Your task to perform on an android device: empty trash in the gmail app Image 0: 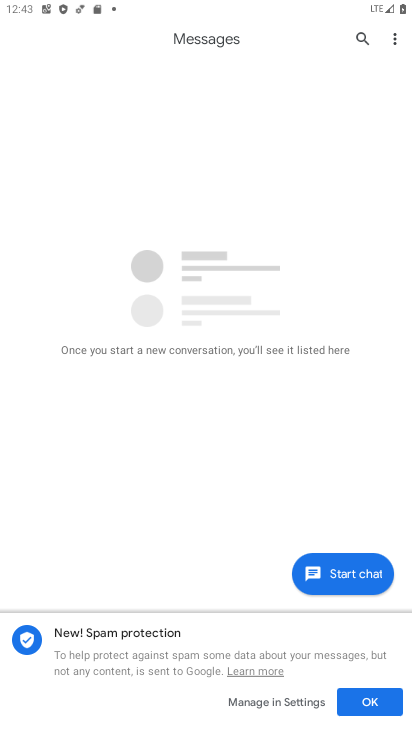
Step 0: press home button
Your task to perform on an android device: empty trash in the gmail app Image 1: 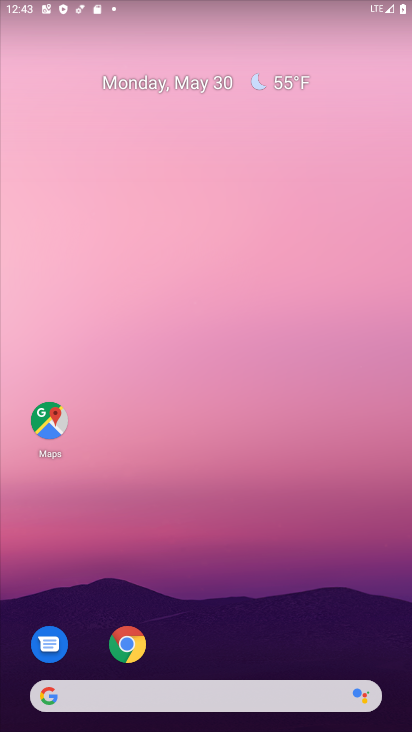
Step 1: drag from (235, 623) to (233, 74)
Your task to perform on an android device: empty trash in the gmail app Image 2: 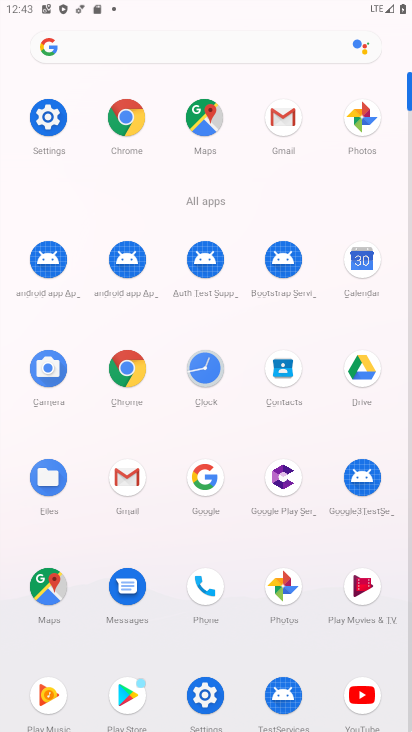
Step 2: click (305, 143)
Your task to perform on an android device: empty trash in the gmail app Image 3: 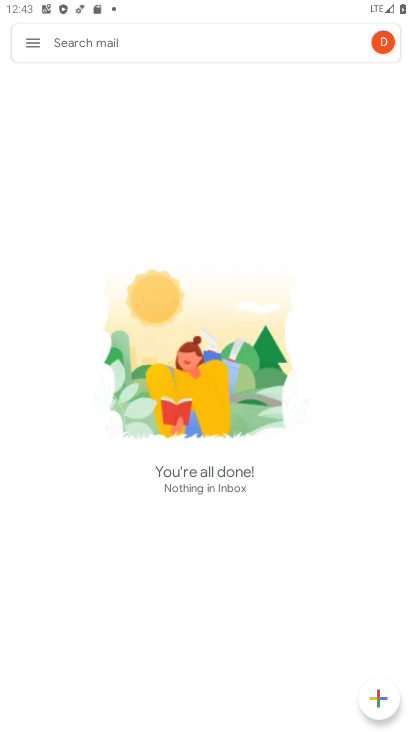
Step 3: click (36, 40)
Your task to perform on an android device: empty trash in the gmail app Image 4: 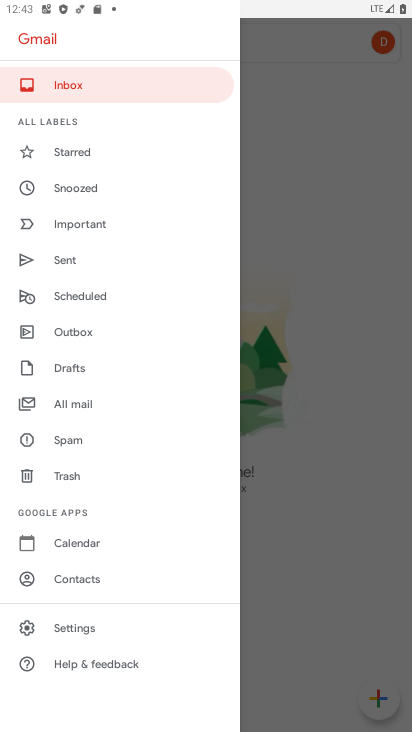
Step 4: click (94, 476)
Your task to perform on an android device: empty trash in the gmail app Image 5: 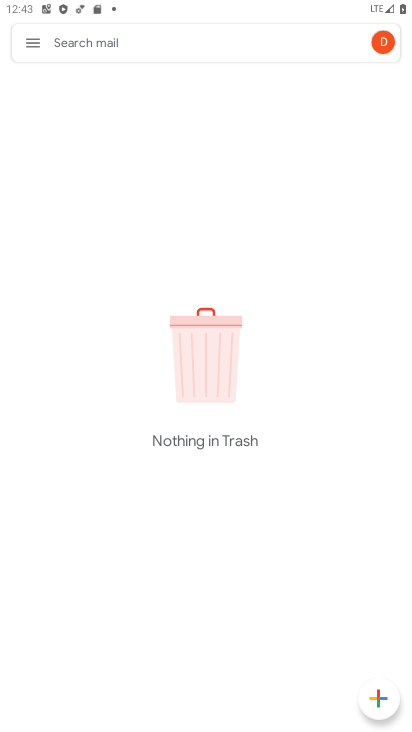
Step 5: task complete